Your task to perform on an android device: Go to Google Image 0: 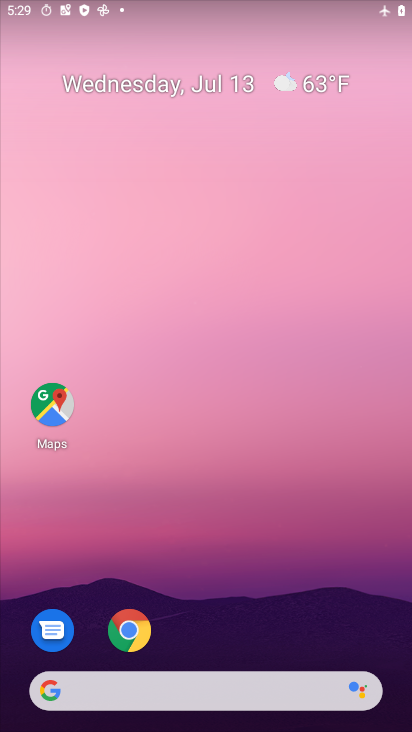
Step 0: click (56, 686)
Your task to perform on an android device: Go to Google Image 1: 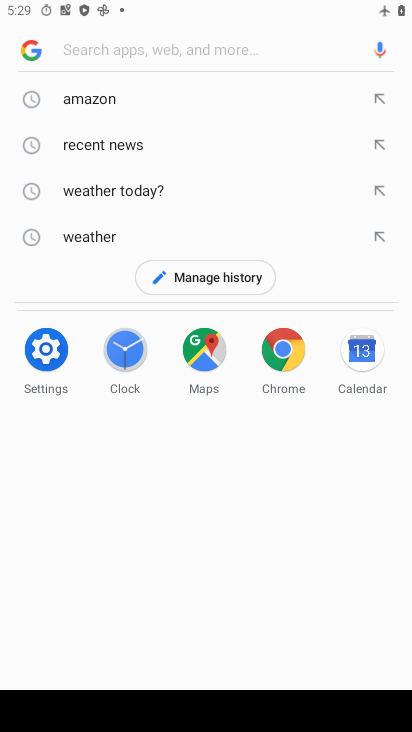
Step 1: task complete